Your task to perform on an android device: Go to wifi settings Image 0: 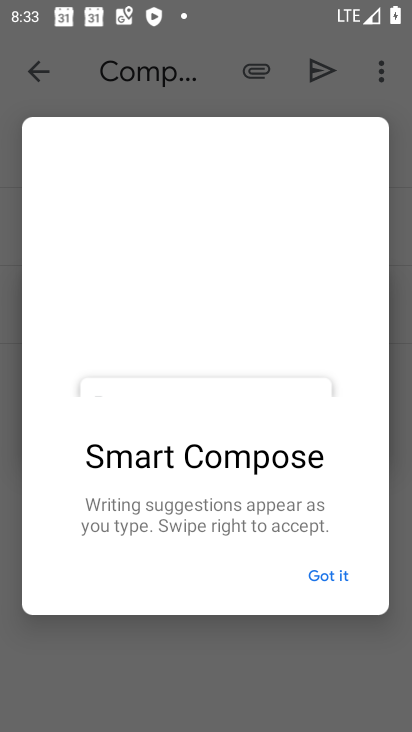
Step 0: press home button
Your task to perform on an android device: Go to wifi settings Image 1: 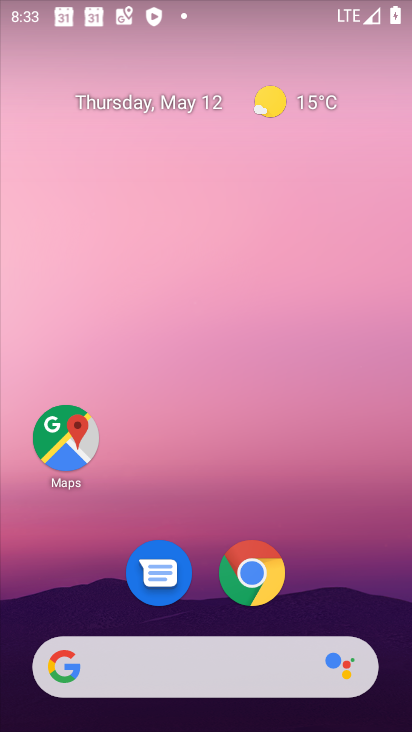
Step 1: drag from (241, 477) to (155, 57)
Your task to perform on an android device: Go to wifi settings Image 2: 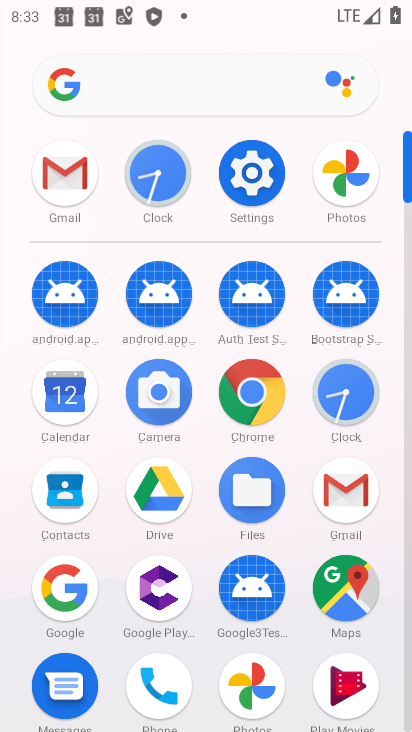
Step 2: click (246, 165)
Your task to perform on an android device: Go to wifi settings Image 3: 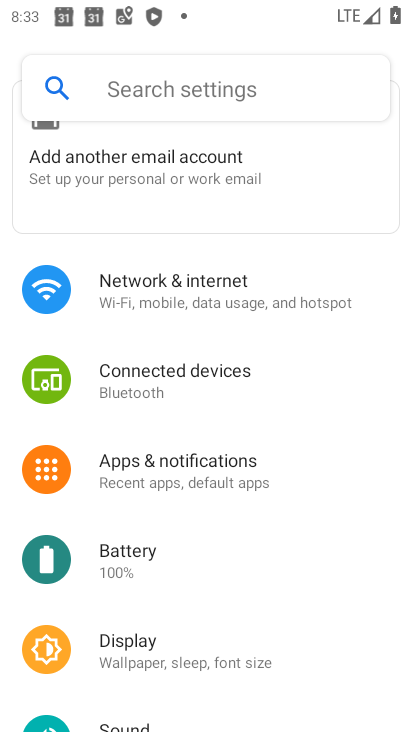
Step 3: click (166, 289)
Your task to perform on an android device: Go to wifi settings Image 4: 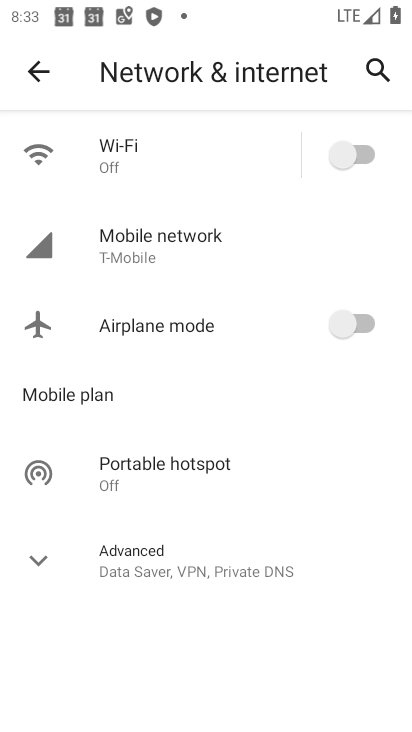
Step 4: click (114, 149)
Your task to perform on an android device: Go to wifi settings Image 5: 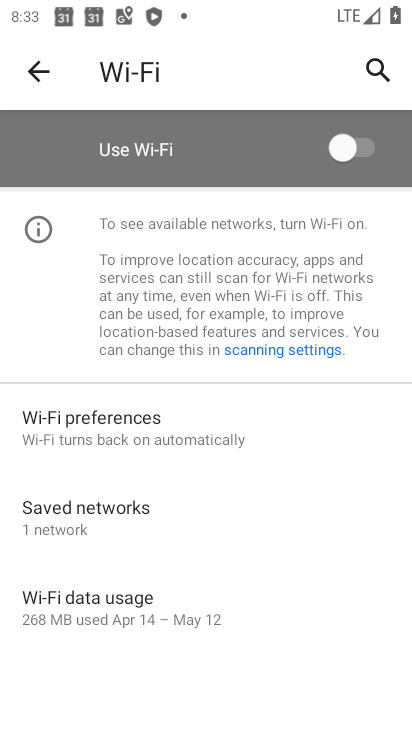
Step 5: task complete